Your task to perform on an android device: turn off javascript in the chrome app Image 0: 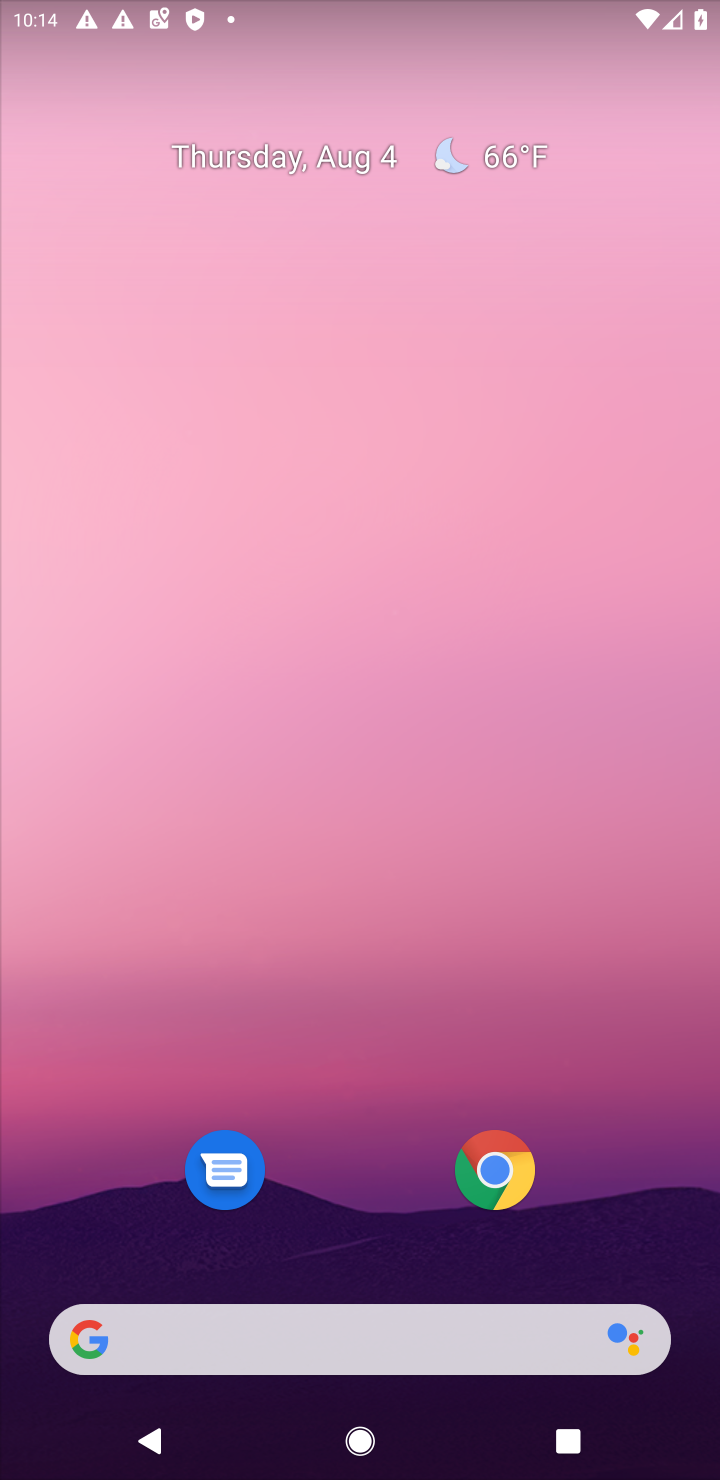
Step 0: drag from (351, 1058) to (548, 18)
Your task to perform on an android device: turn off javascript in the chrome app Image 1: 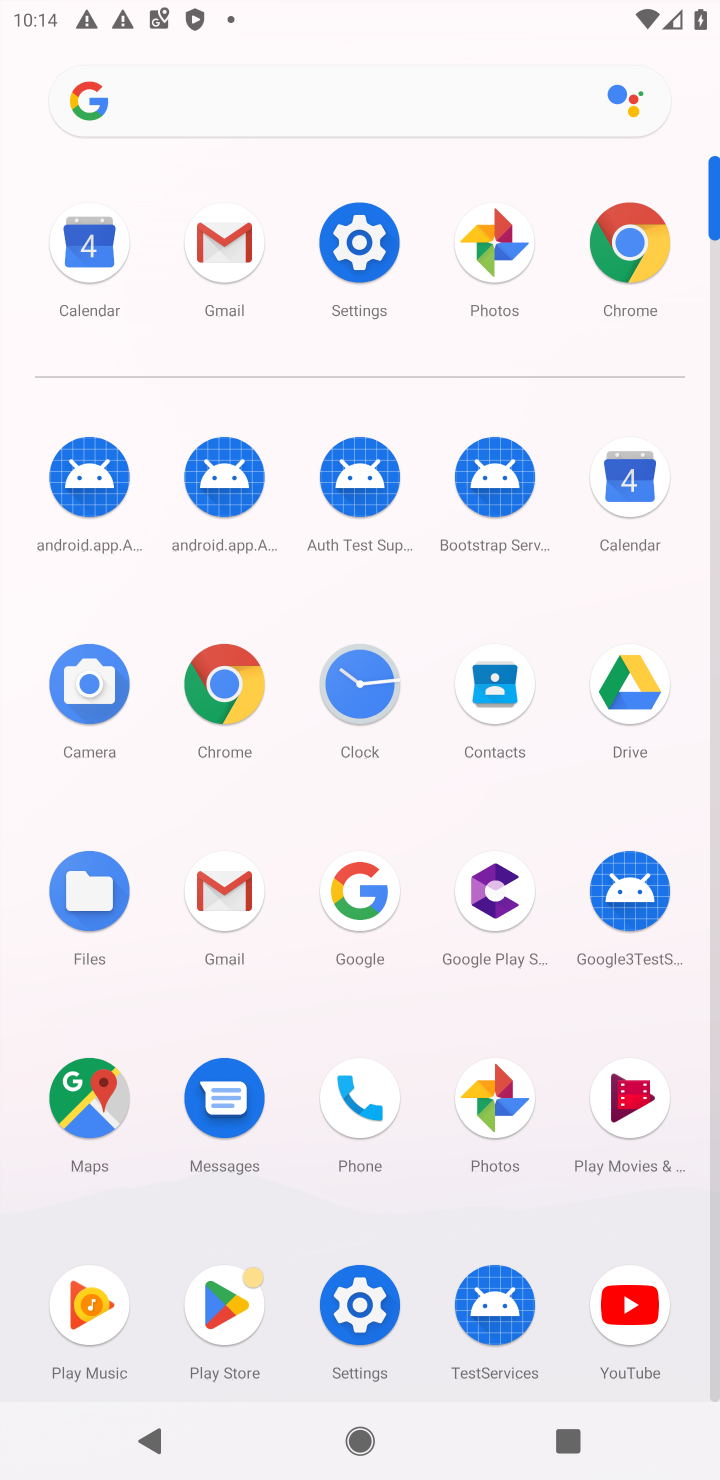
Step 1: click (615, 249)
Your task to perform on an android device: turn off javascript in the chrome app Image 2: 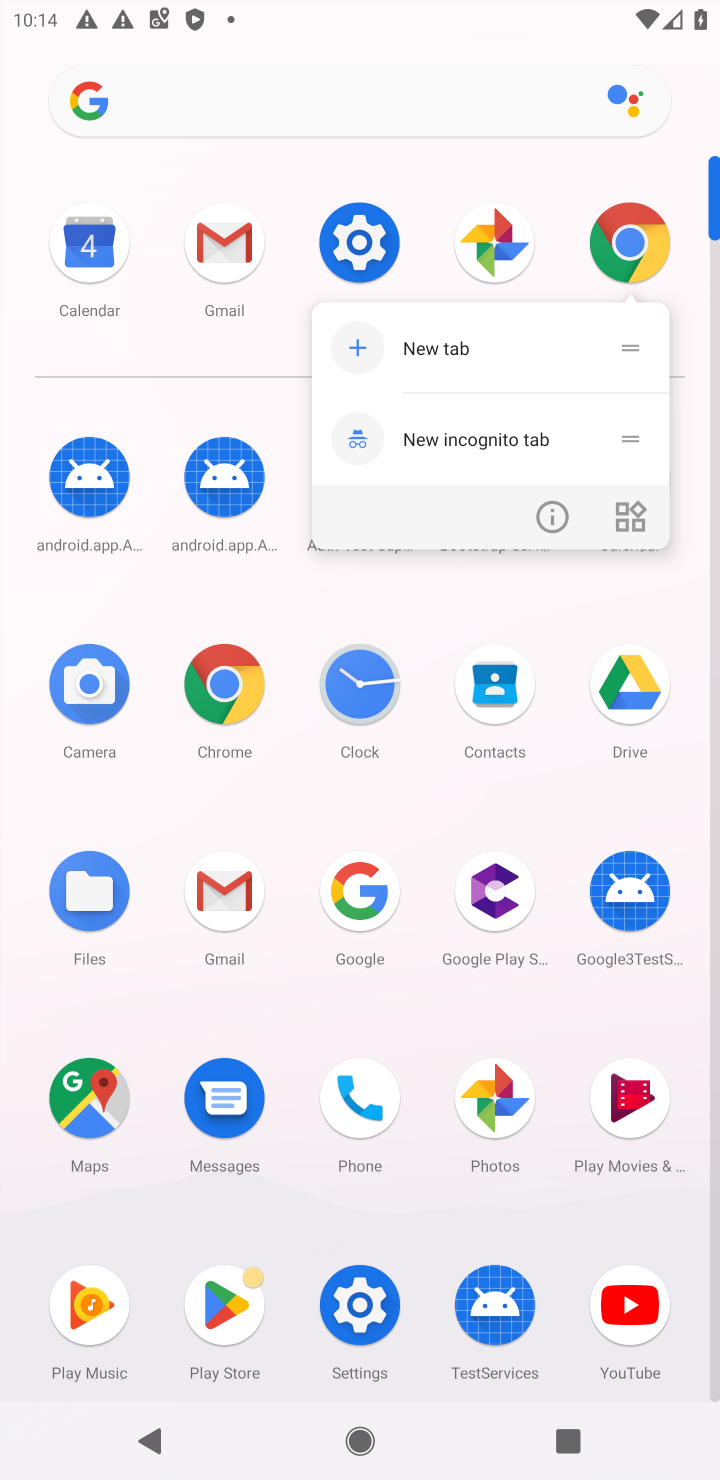
Step 2: click (617, 253)
Your task to perform on an android device: turn off javascript in the chrome app Image 3: 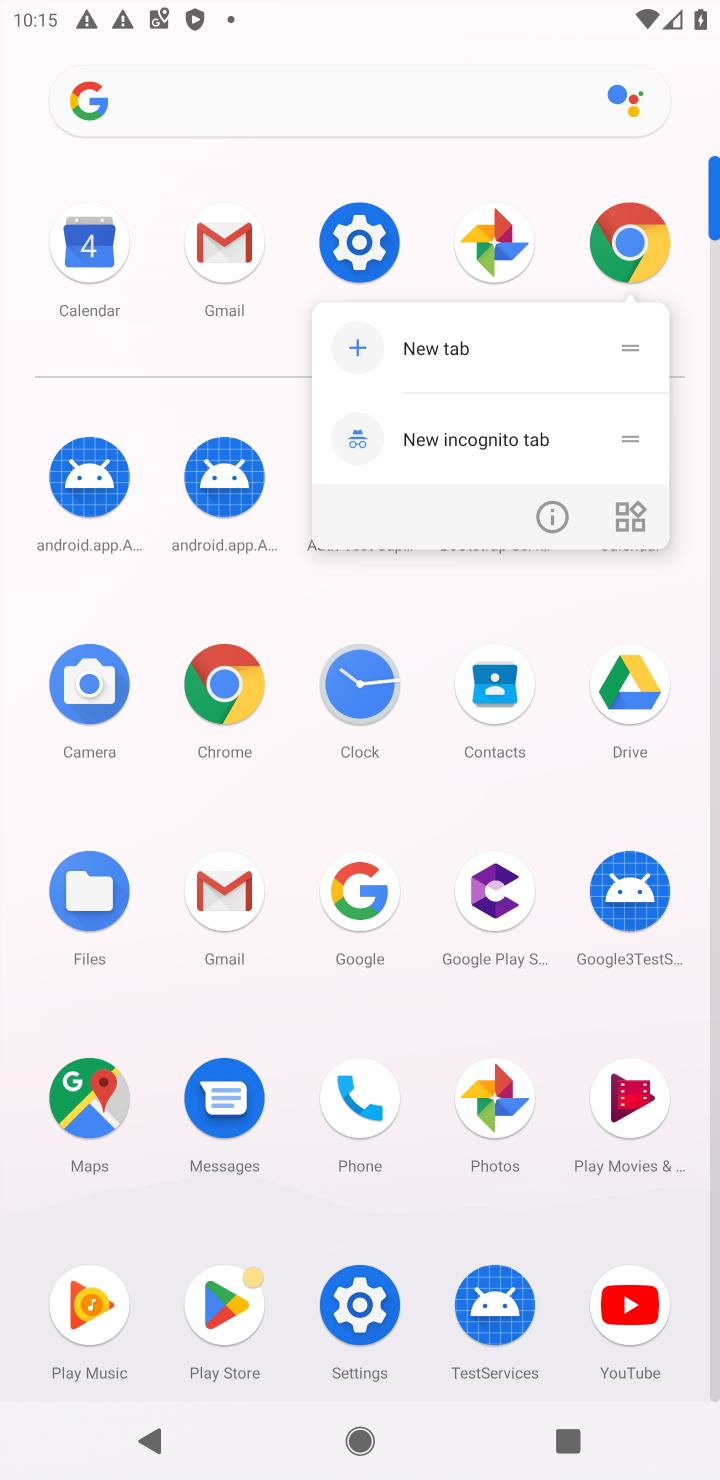
Step 3: click (631, 242)
Your task to perform on an android device: turn off javascript in the chrome app Image 4: 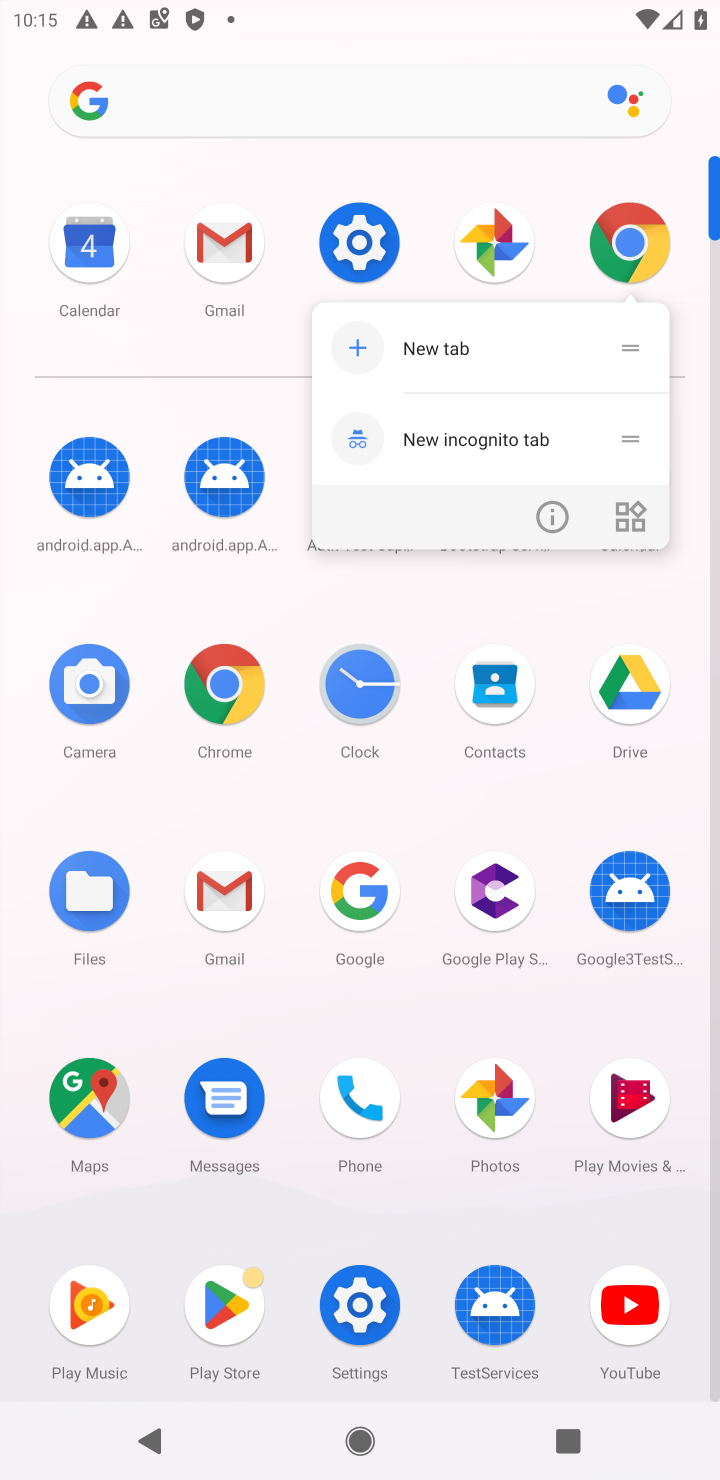
Step 4: click (625, 247)
Your task to perform on an android device: turn off javascript in the chrome app Image 5: 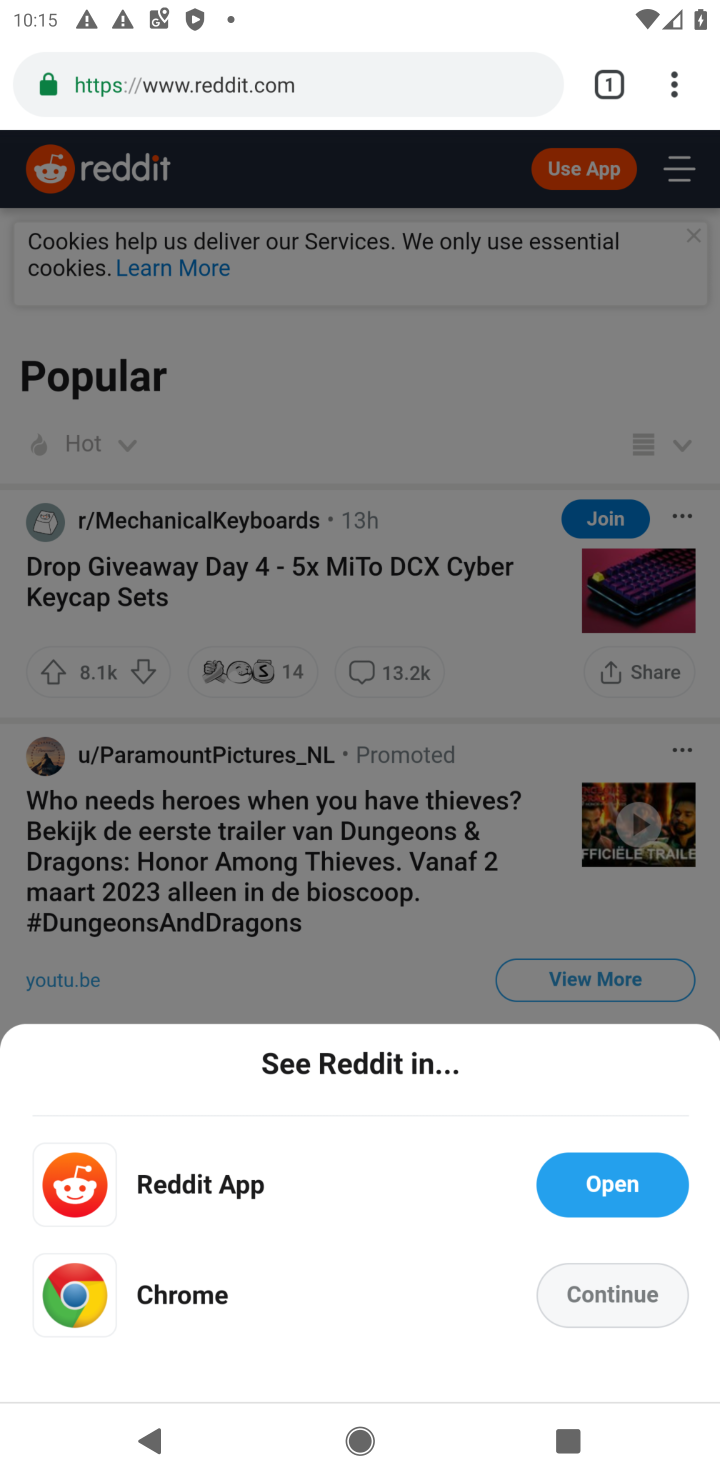
Step 5: drag from (665, 93) to (391, 976)
Your task to perform on an android device: turn off javascript in the chrome app Image 6: 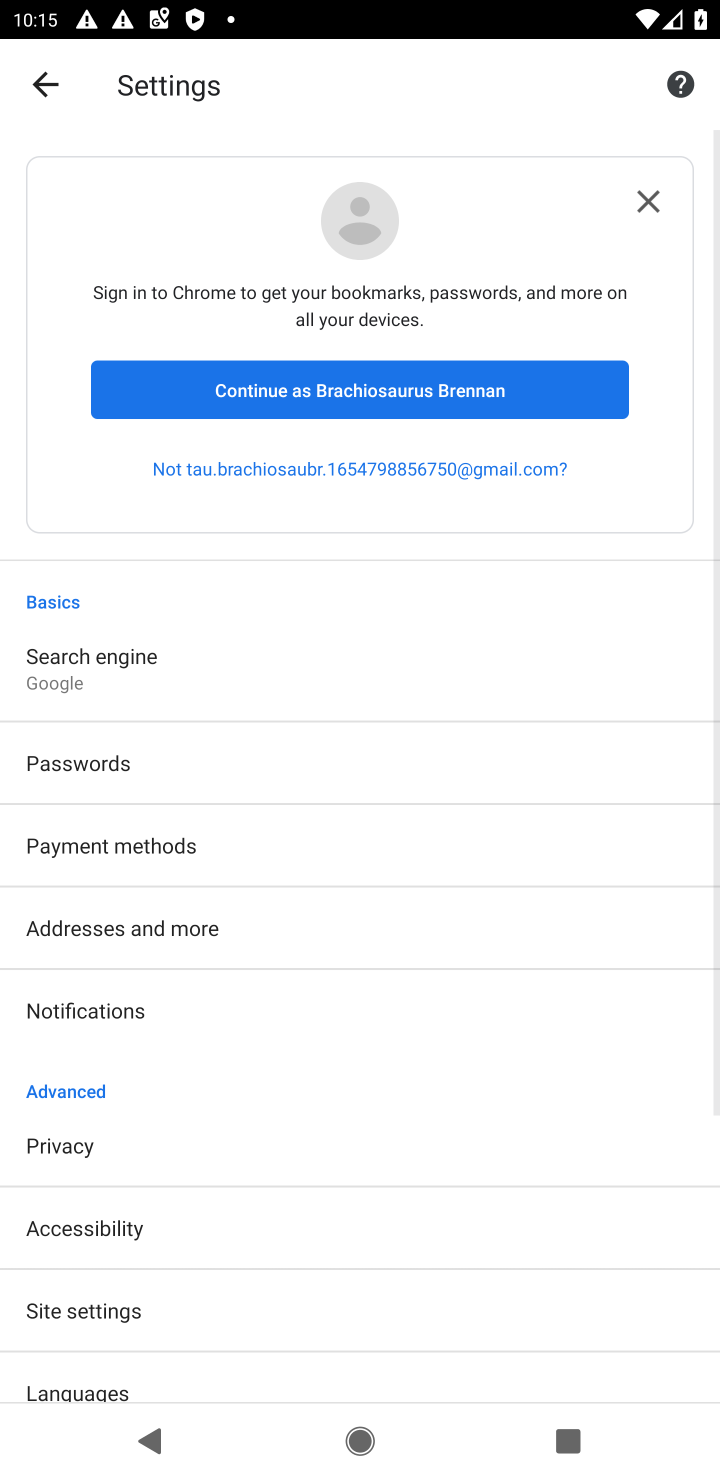
Step 6: drag from (199, 1231) to (325, 297)
Your task to perform on an android device: turn off javascript in the chrome app Image 7: 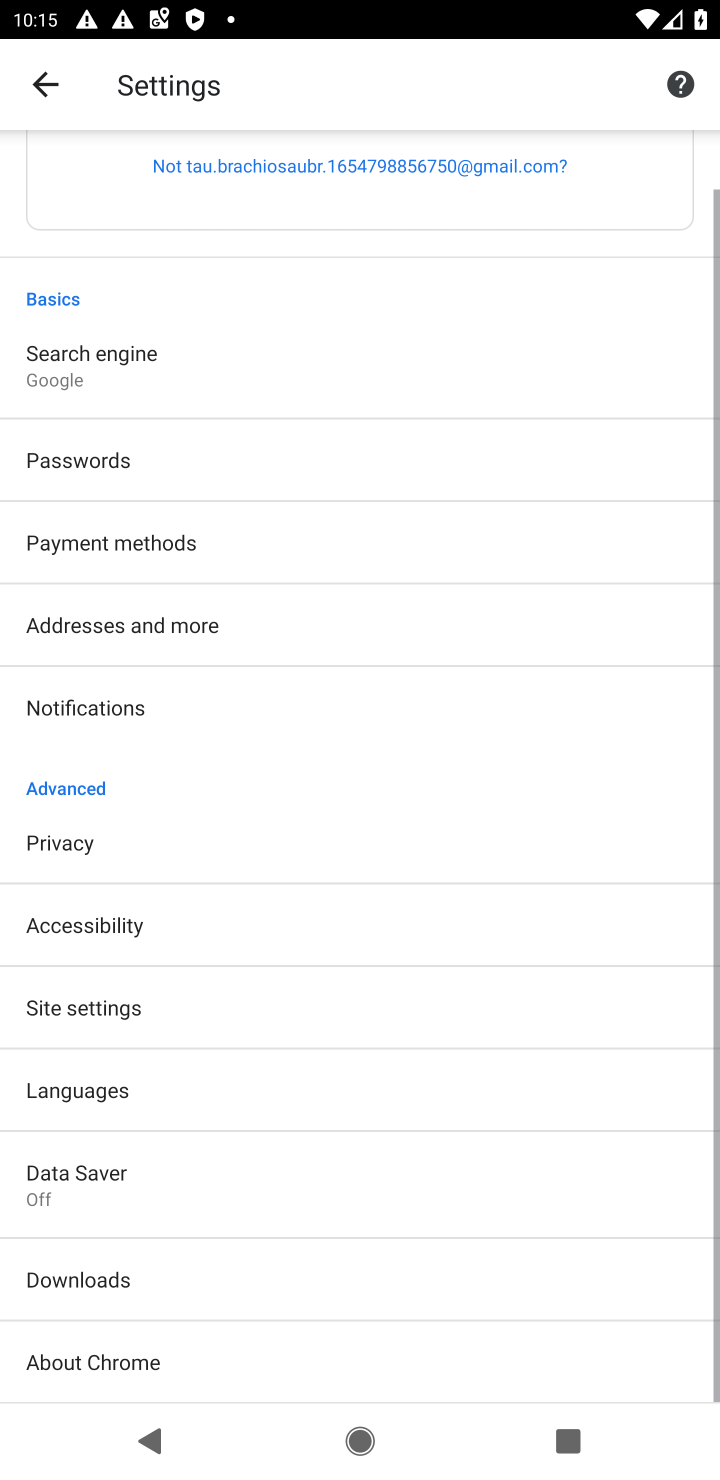
Step 7: click (90, 1000)
Your task to perform on an android device: turn off javascript in the chrome app Image 8: 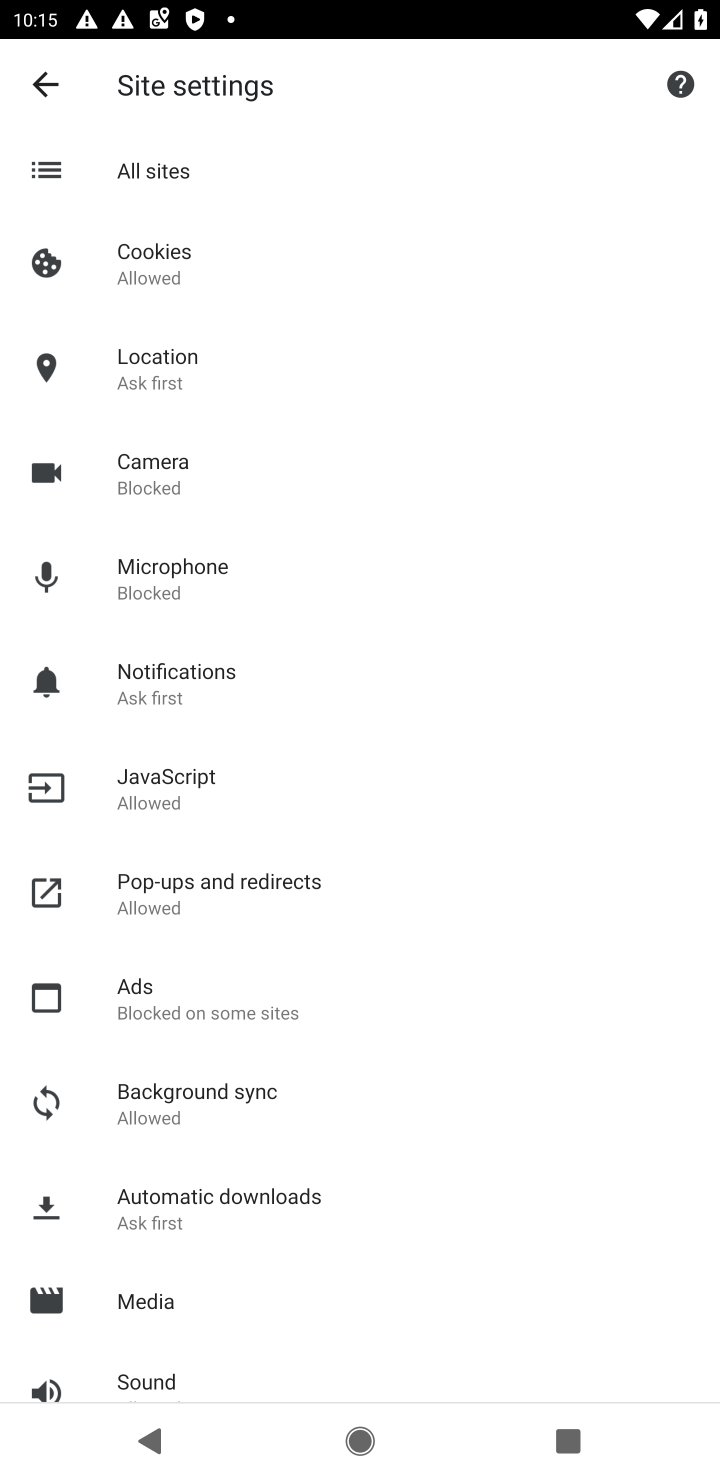
Step 8: click (208, 771)
Your task to perform on an android device: turn off javascript in the chrome app Image 9: 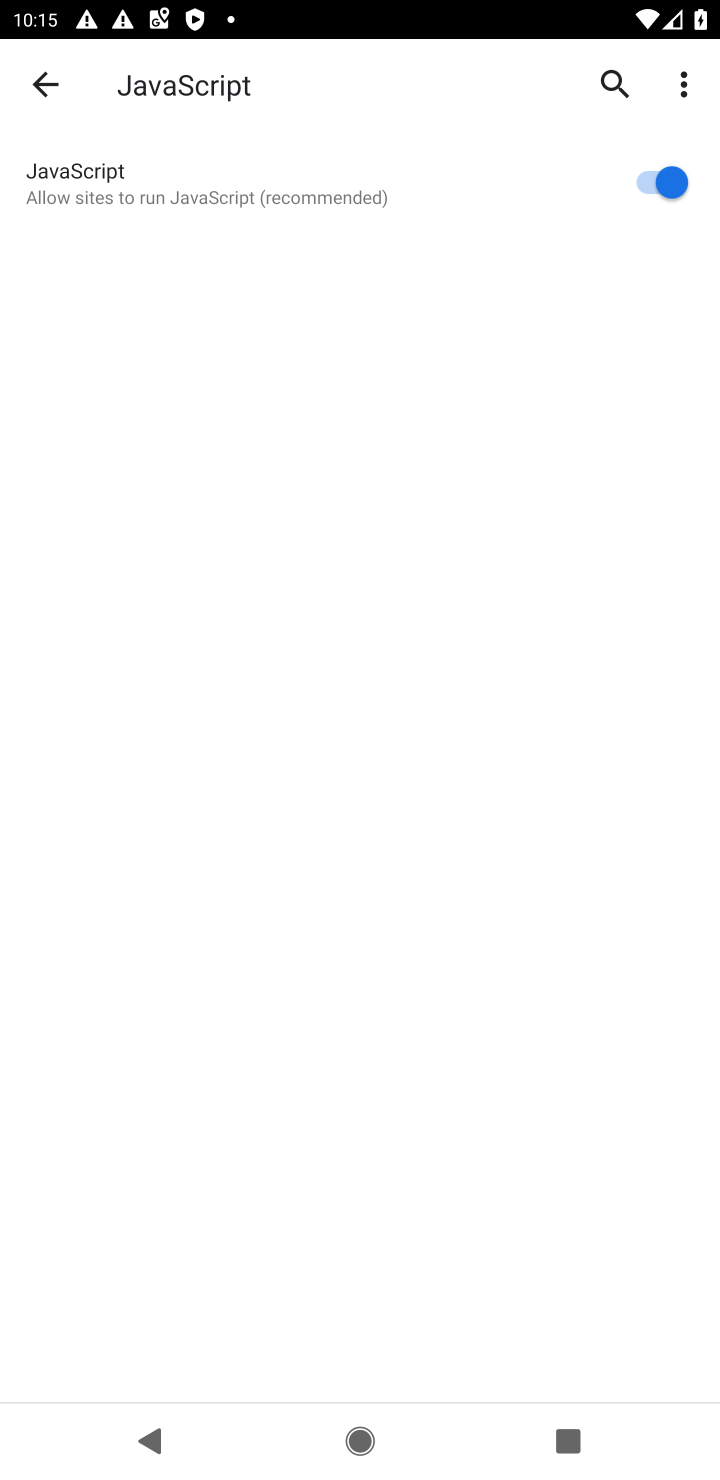
Step 9: click (654, 199)
Your task to perform on an android device: turn off javascript in the chrome app Image 10: 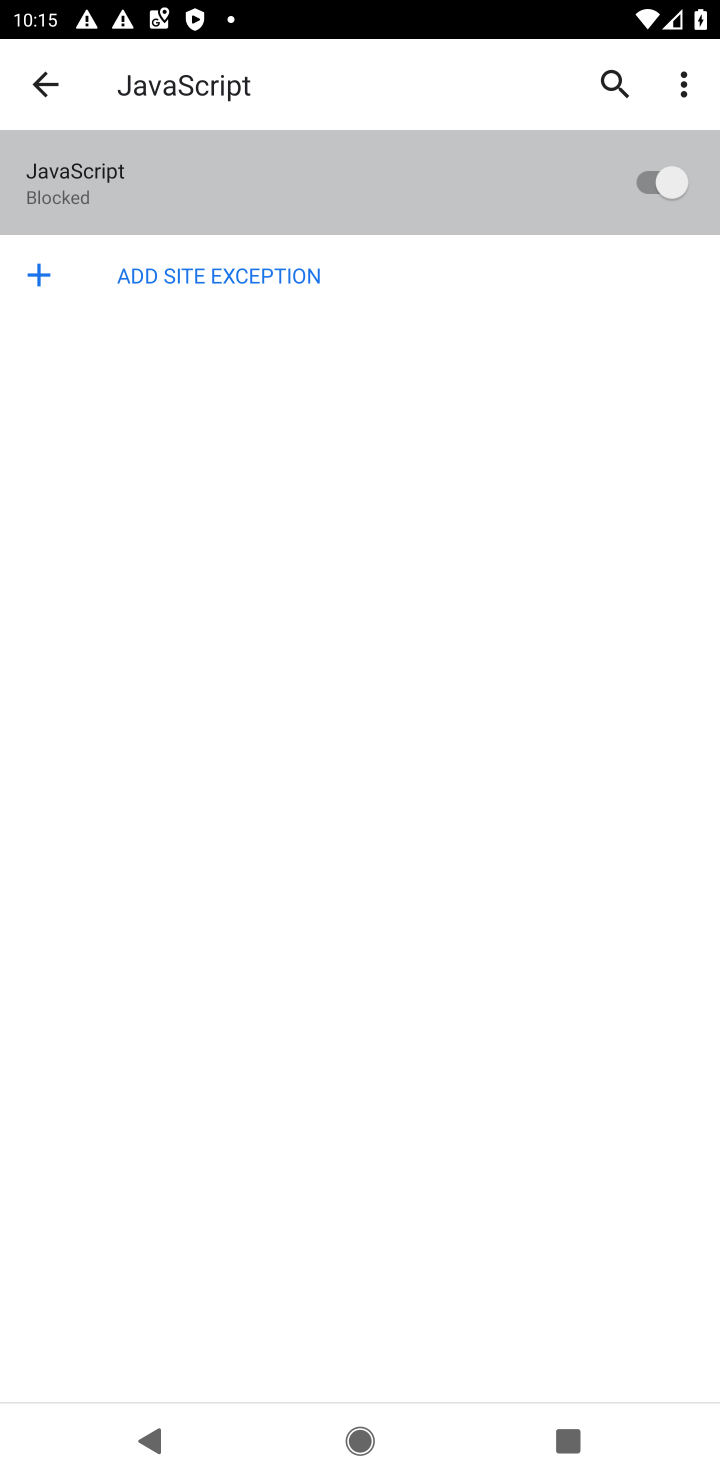
Step 10: task complete